Your task to perform on an android device: Open calendar and show me the second week of next month Image 0: 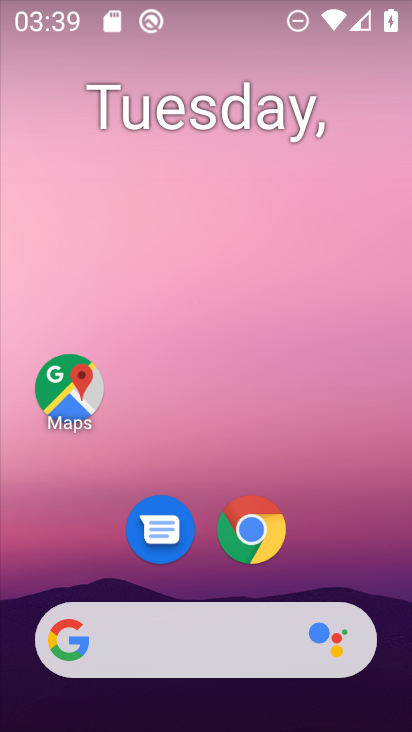
Step 0: drag from (297, 552) to (323, 251)
Your task to perform on an android device: Open calendar and show me the second week of next month Image 1: 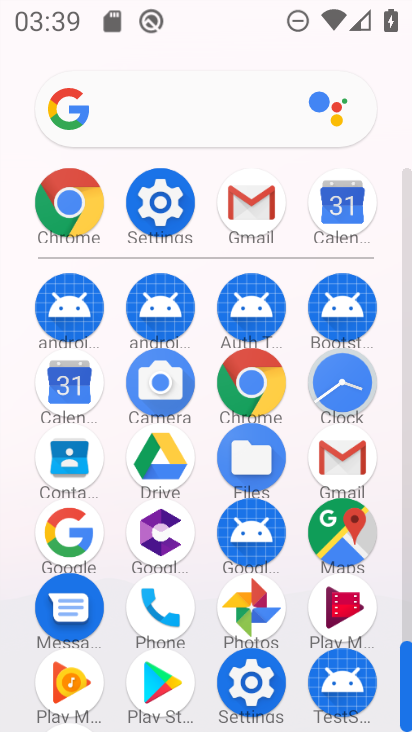
Step 1: click (69, 378)
Your task to perform on an android device: Open calendar and show me the second week of next month Image 2: 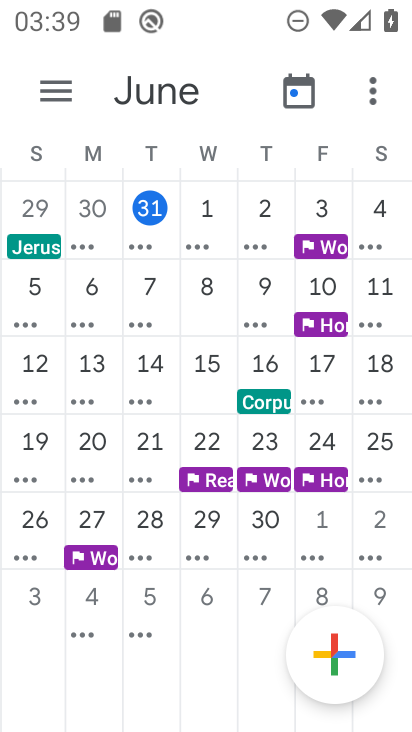
Step 2: click (40, 97)
Your task to perform on an android device: Open calendar and show me the second week of next month Image 3: 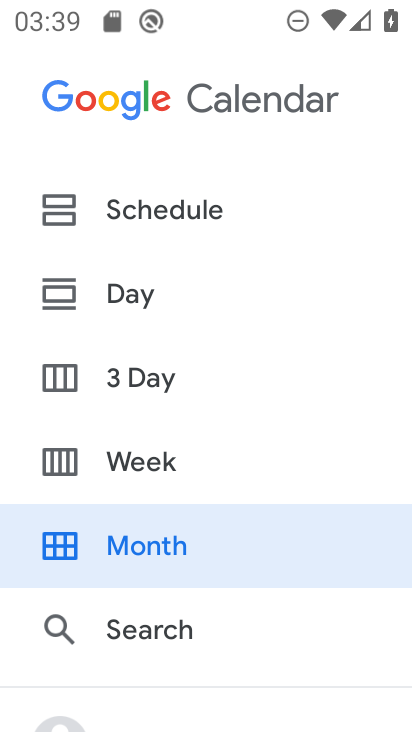
Step 3: click (132, 467)
Your task to perform on an android device: Open calendar and show me the second week of next month Image 4: 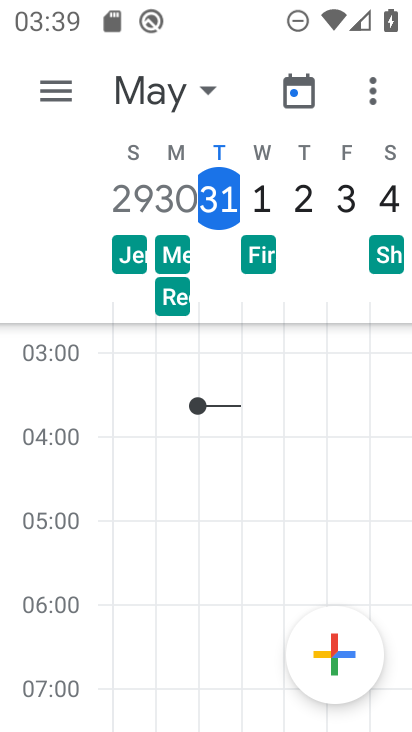
Step 4: task complete